Your task to perform on an android device: toggle pop-ups in chrome Image 0: 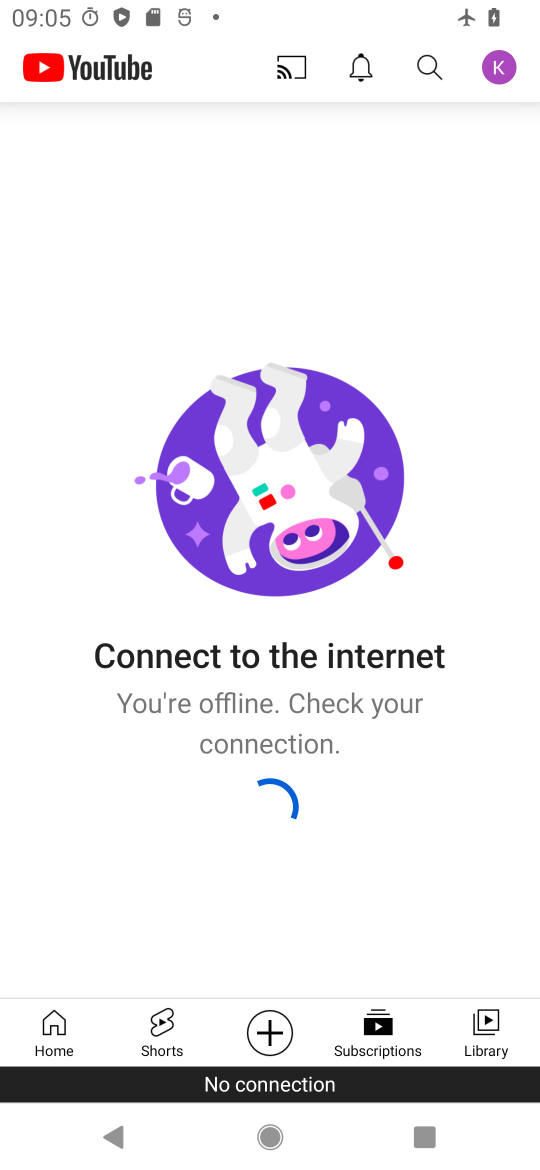
Step 0: press home button
Your task to perform on an android device: toggle pop-ups in chrome Image 1: 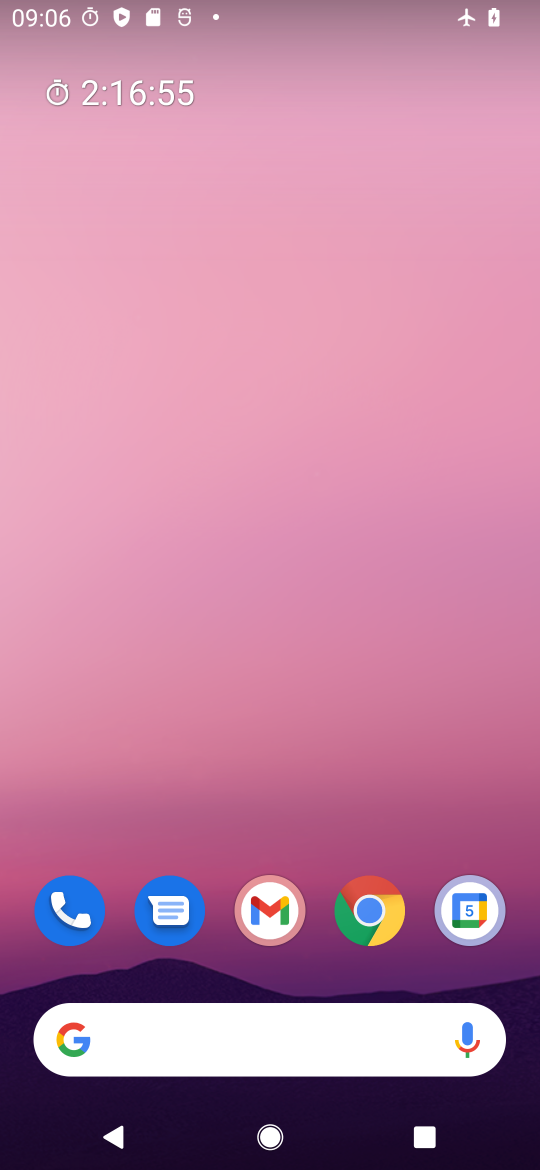
Step 1: drag from (174, 1007) to (326, 152)
Your task to perform on an android device: toggle pop-ups in chrome Image 2: 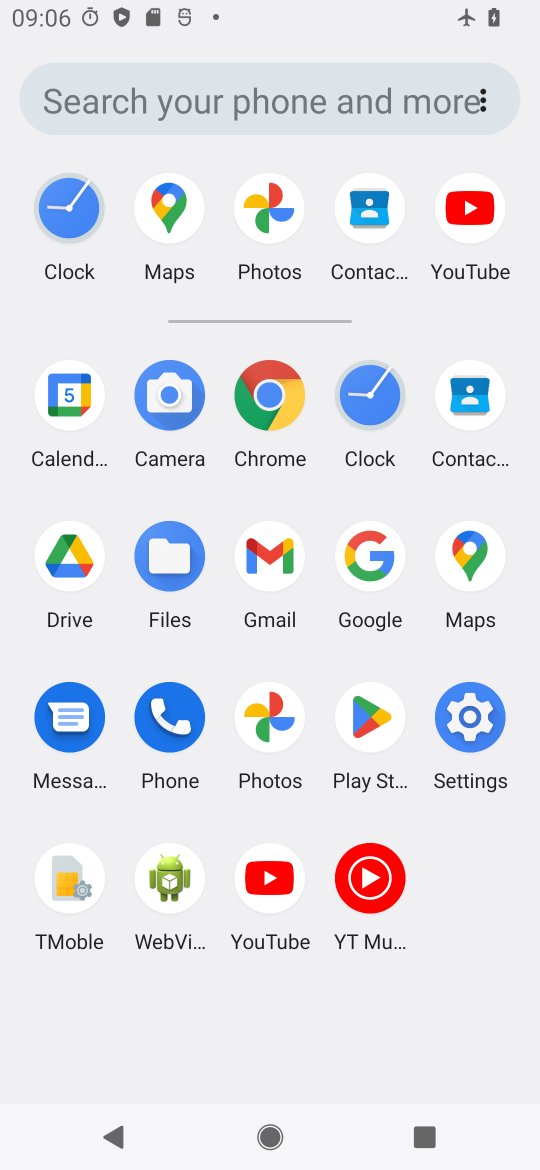
Step 2: click (263, 425)
Your task to perform on an android device: toggle pop-ups in chrome Image 3: 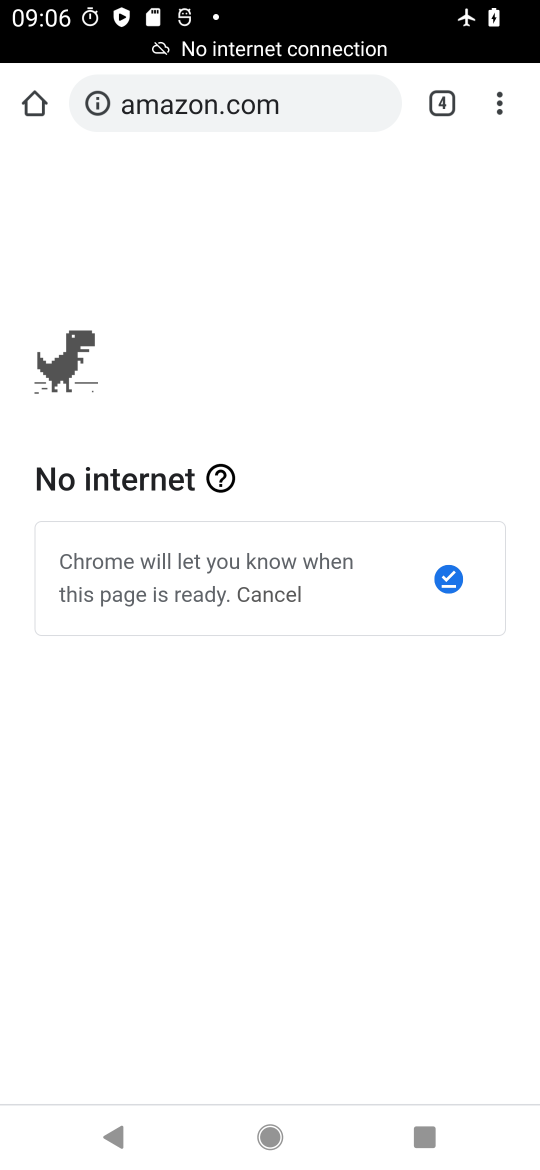
Step 3: click (498, 110)
Your task to perform on an android device: toggle pop-ups in chrome Image 4: 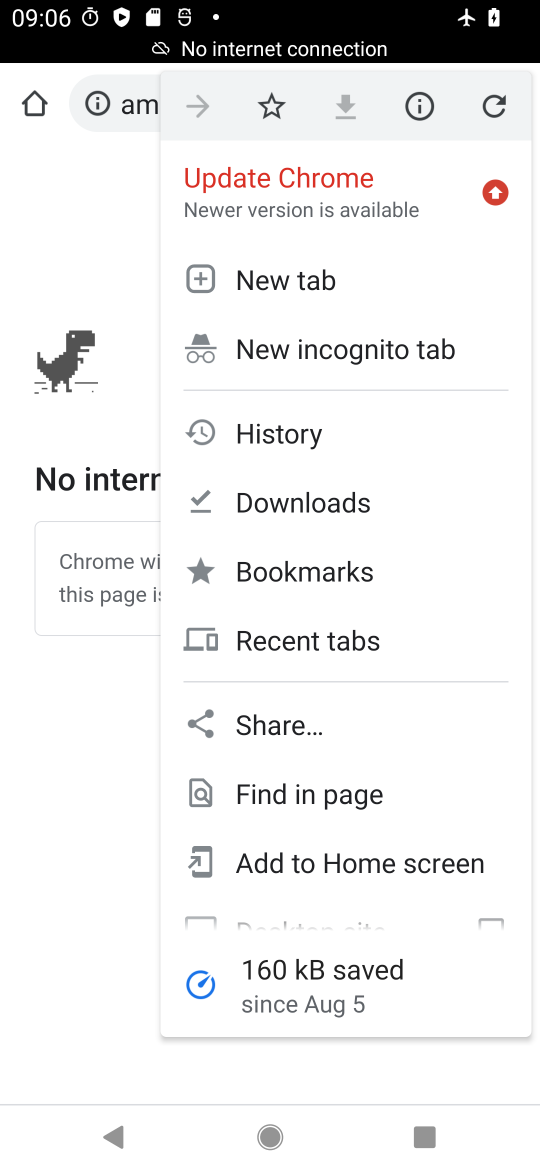
Step 4: drag from (305, 864) to (394, 243)
Your task to perform on an android device: toggle pop-ups in chrome Image 5: 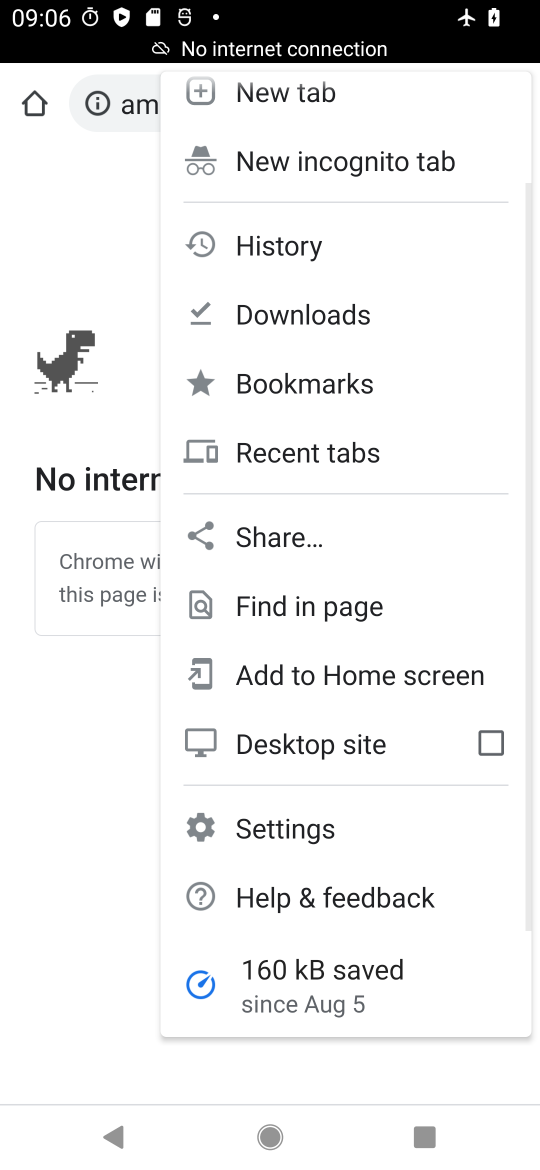
Step 5: click (255, 830)
Your task to perform on an android device: toggle pop-ups in chrome Image 6: 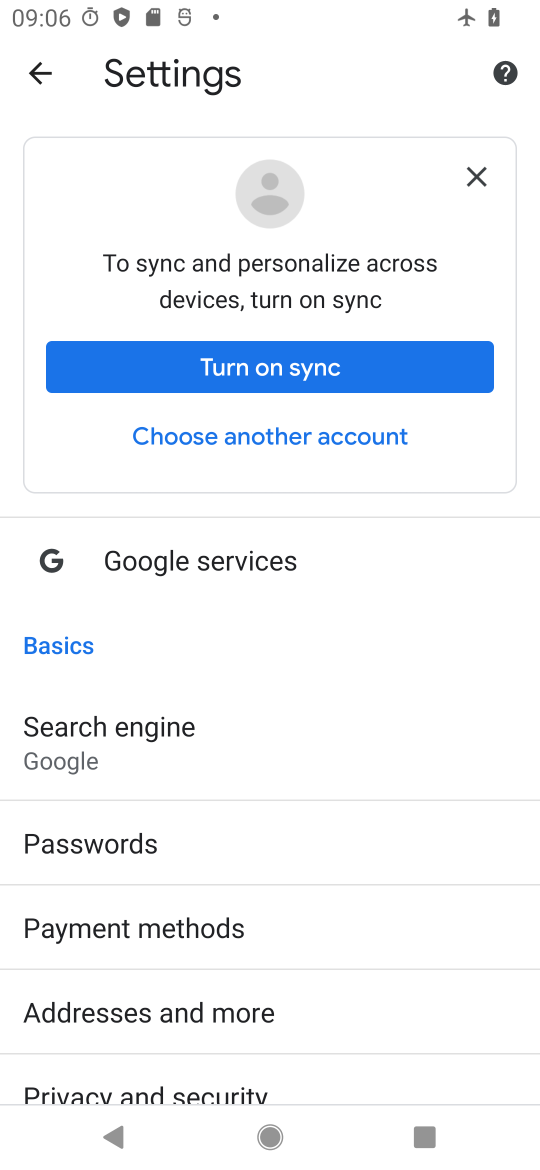
Step 6: drag from (255, 830) to (306, 104)
Your task to perform on an android device: toggle pop-ups in chrome Image 7: 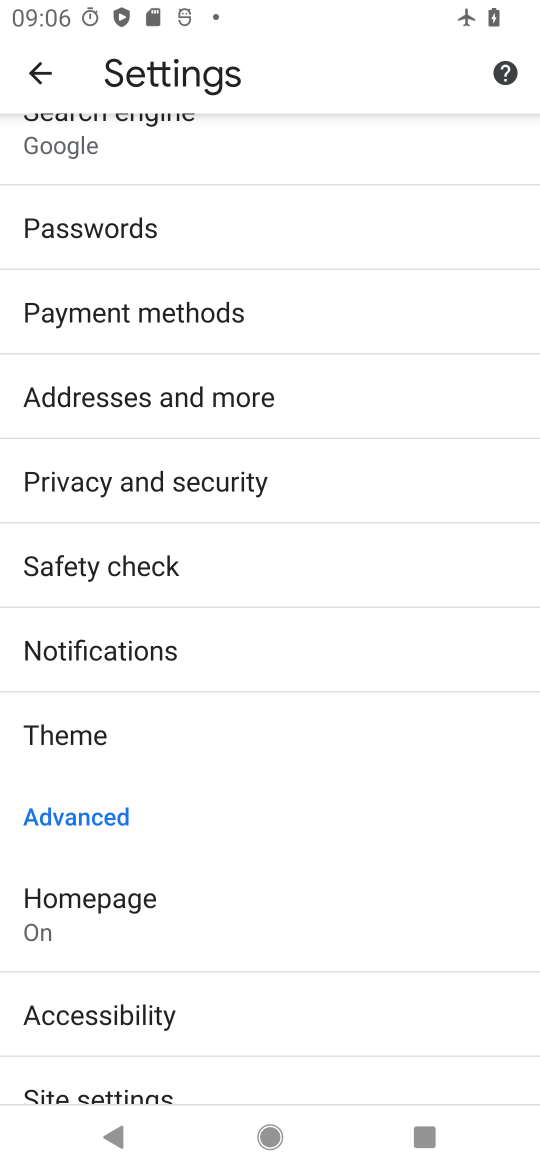
Step 7: drag from (314, 923) to (313, 497)
Your task to perform on an android device: toggle pop-ups in chrome Image 8: 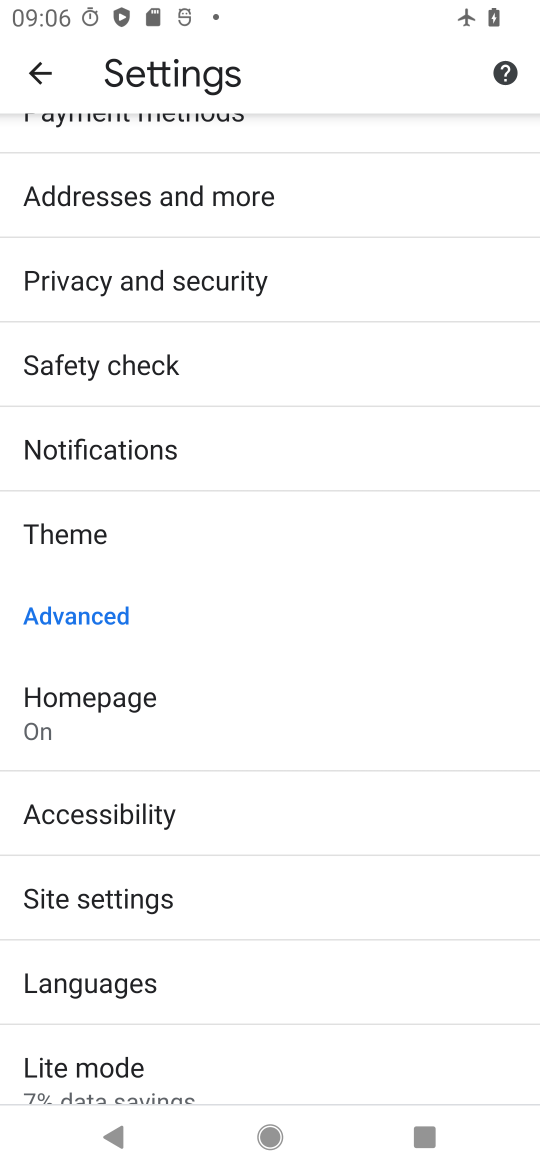
Step 8: click (177, 887)
Your task to perform on an android device: toggle pop-ups in chrome Image 9: 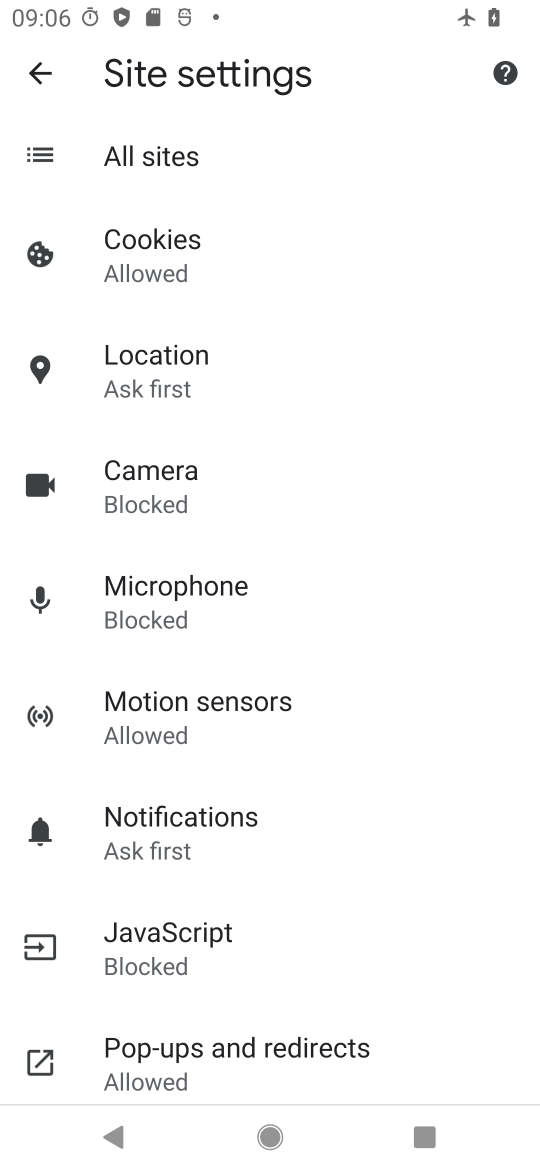
Step 9: click (229, 1072)
Your task to perform on an android device: toggle pop-ups in chrome Image 10: 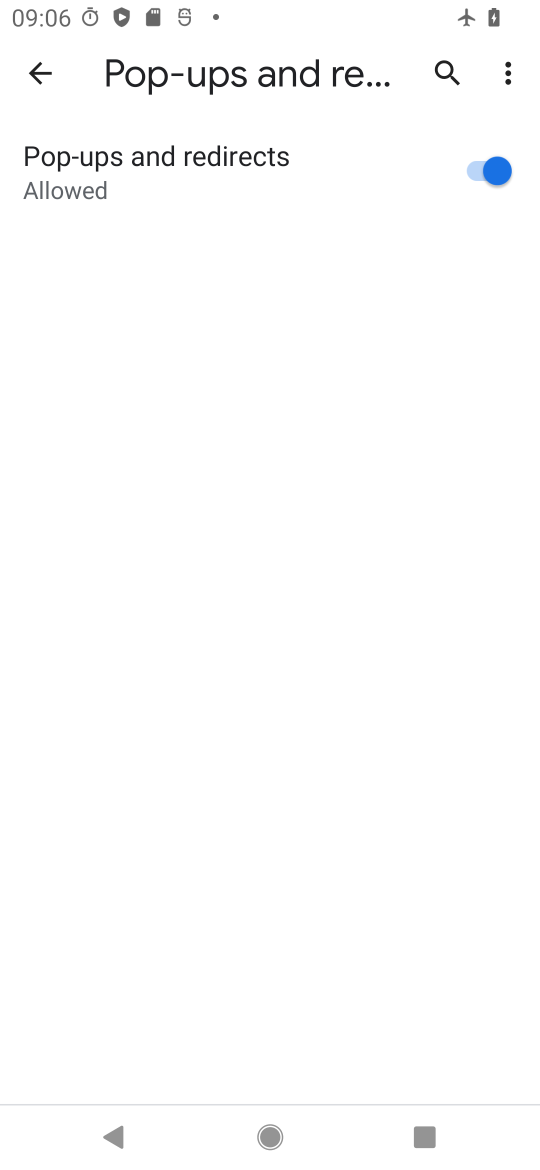
Step 10: click (496, 157)
Your task to perform on an android device: toggle pop-ups in chrome Image 11: 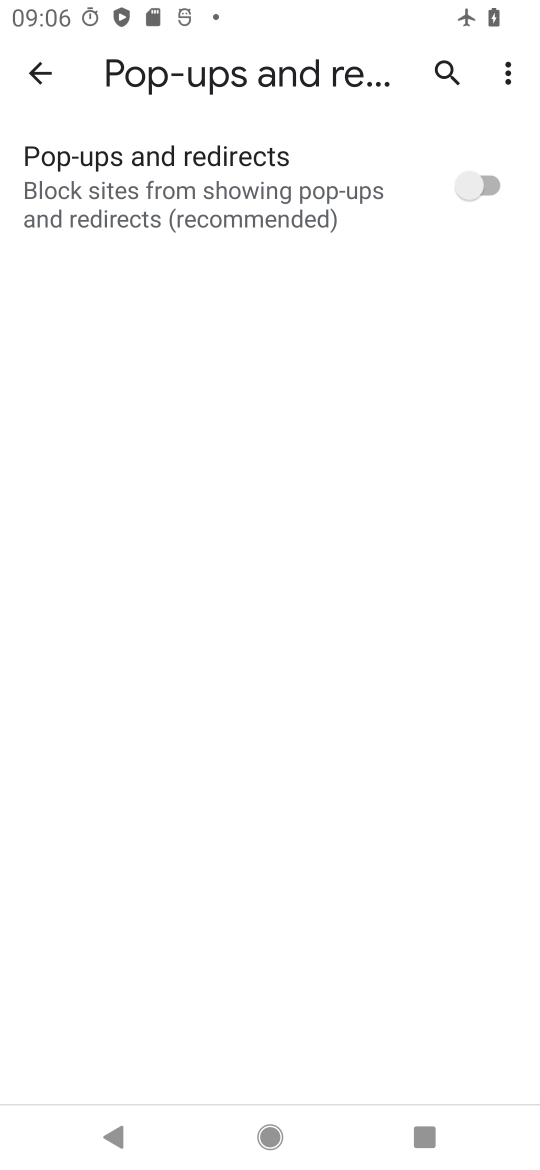
Step 11: task complete